Your task to perform on an android device: What's the weather today? Image 0: 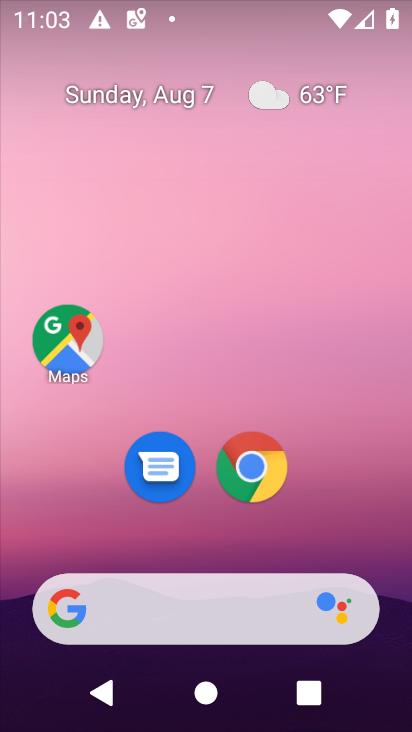
Step 0: drag from (289, 620) to (240, 17)
Your task to perform on an android device: What's the weather today? Image 1: 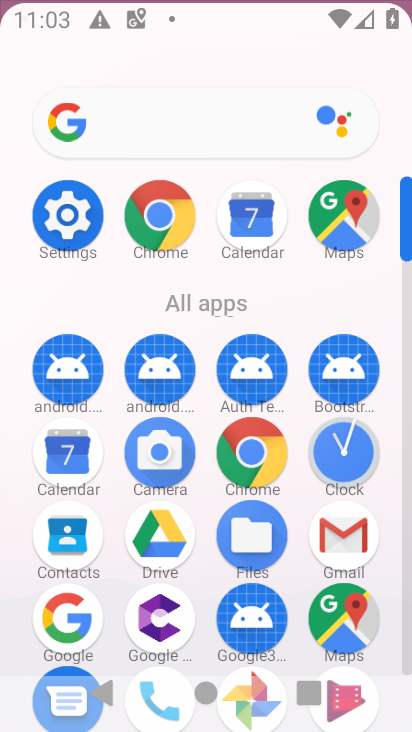
Step 1: drag from (249, 459) to (197, 212)
Your task to perform on an android device: What's the weather today? Image 2: 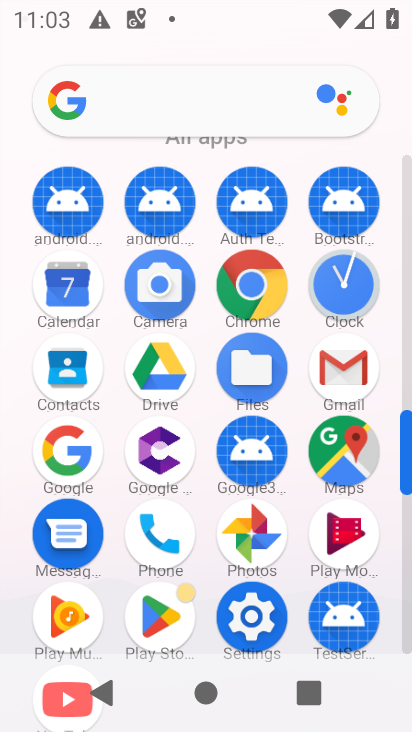
Step 2: click (261, 281)
Your task to perform on an android device: What's the weather today? Image 3: 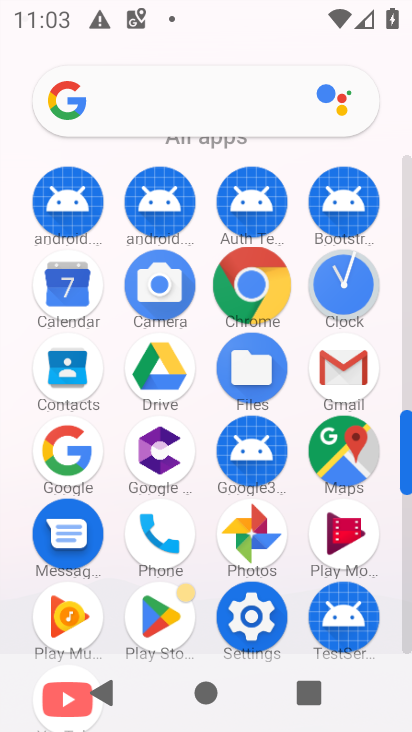
Step 3: click (261, 282)
Your task to perform on an android device: What's the weather today? Image 4: 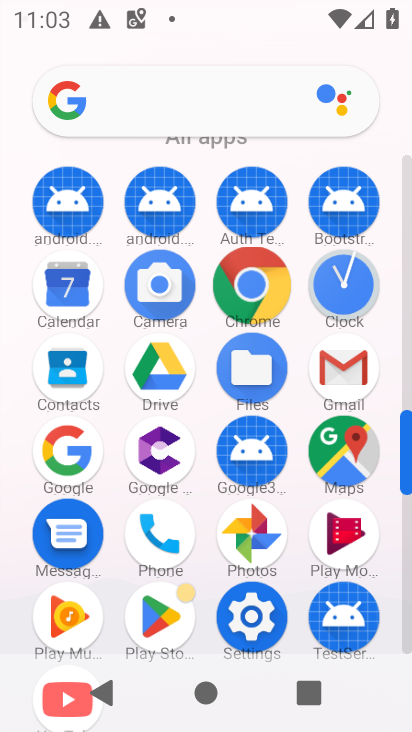
Step 4: click (262, 283)
Your task to perform on an android device: What's the weather today? Image 5: 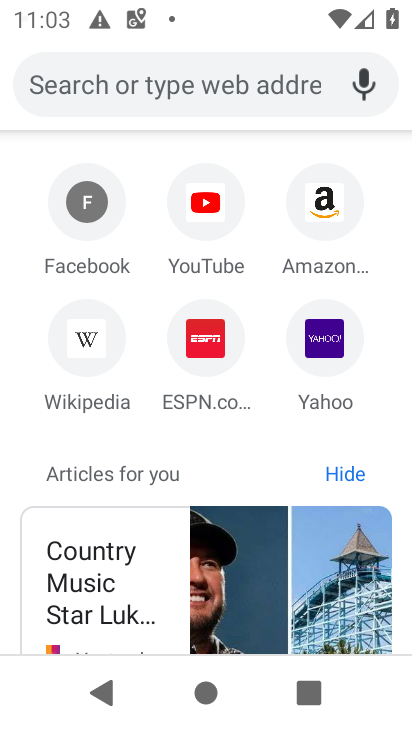
Step 5: click (263, 286)
Your task to perform on an android device: What's the weather today? Image 6: 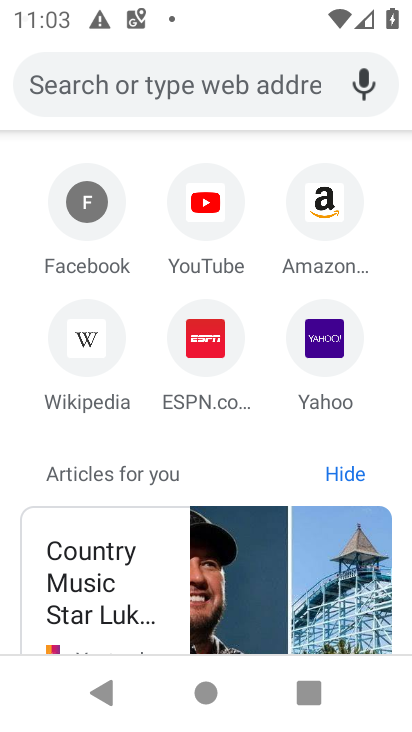
Step 6: click (132, 97)
Your task to perform on an android device: What's the weather today? Image 7: 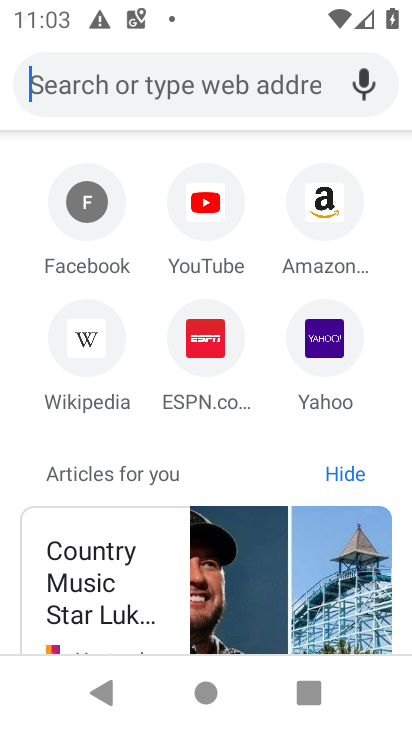
Step 7: click (132, 97)
Your task to perform on an android device: What's the weather today? Image 8: 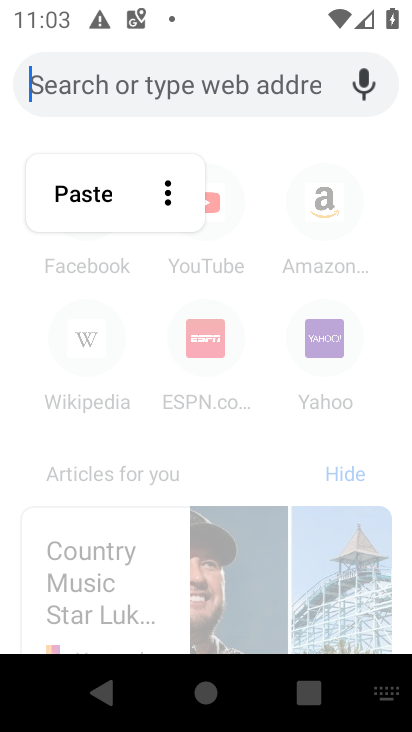
Step 8: type "what's the weather"
Your task to perform on an android device: What's the weather today? Image 9: 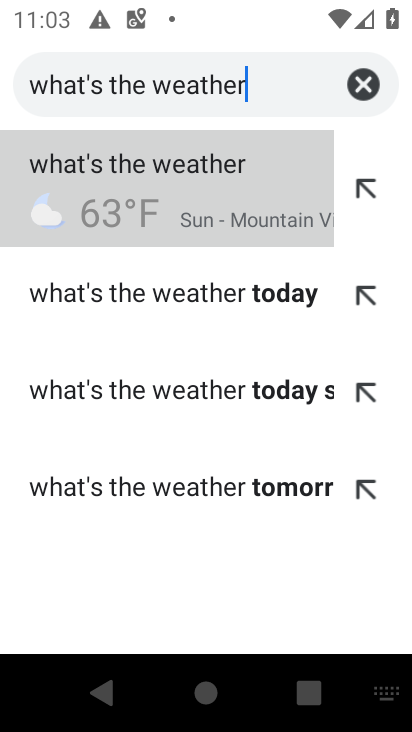
Step 9: click (216, 164)
Your task to perform on an android device: What's the weather today? Image 10: 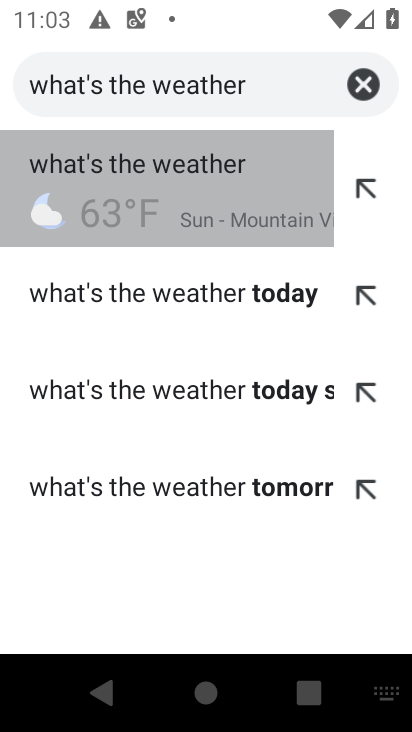
Step 10: click (221, 157)
Your task to perform on an android device: What's the weather today? Image 11: 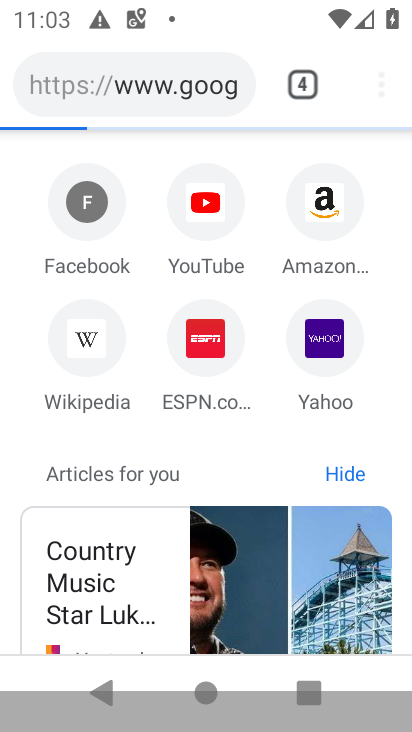
Step 11: click (237, 161)
Your task to perform on an android device: What's the weather today? Image 12: 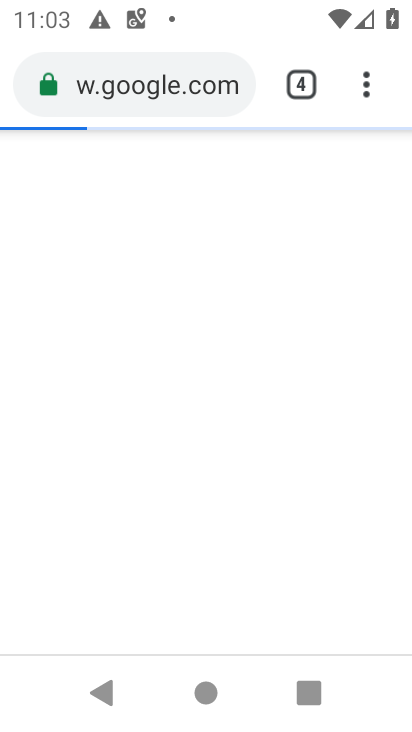
Step 12: click (243, 164)
Your task to perform on an android device: What's the weather today? Image 13: 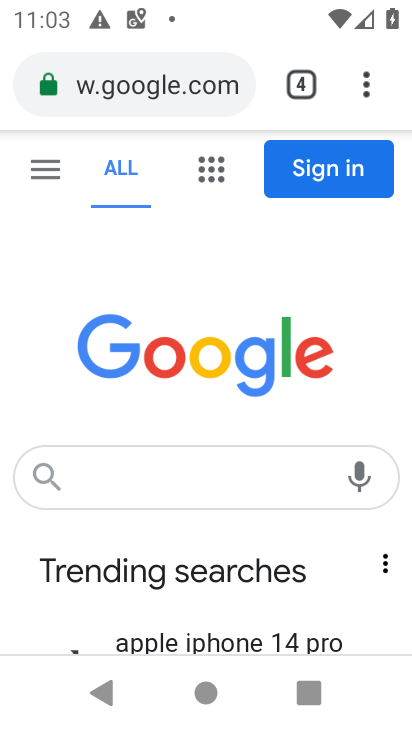
Step 13: task complete